Your task to perform on an android device: turn smart compose on in the gmail app Image 0: 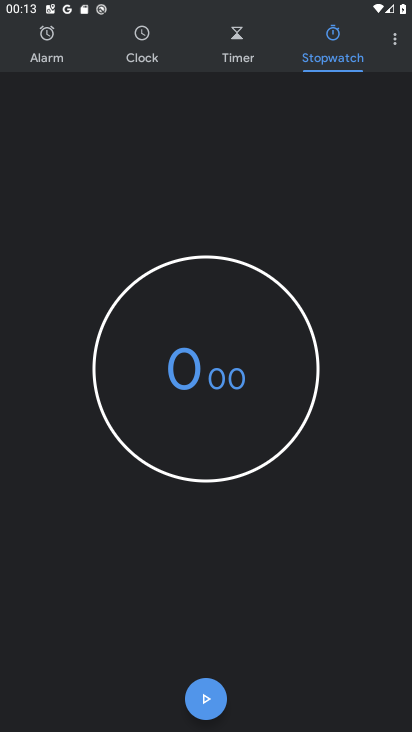
Step 0: press home button
Your task to perform on an android device: turn smart compose on in the gmail app Image 1: 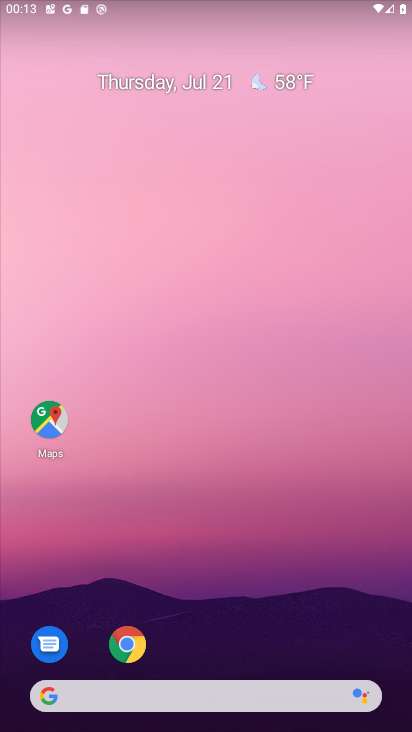
Step 1: drag from (205, 726) to (369, 3)
Your task to perform on an android device: turn smart compose on in the gmail app Image 2: 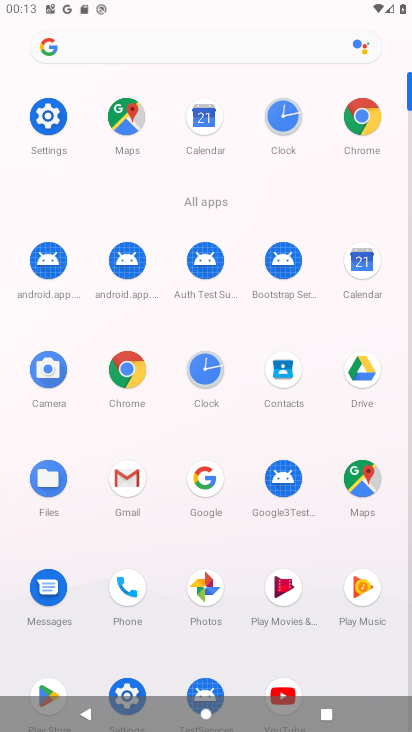
Step 2: click (138, 479)
Your task to perform on an android device: turn smart compose on in the gmail app Image 3: 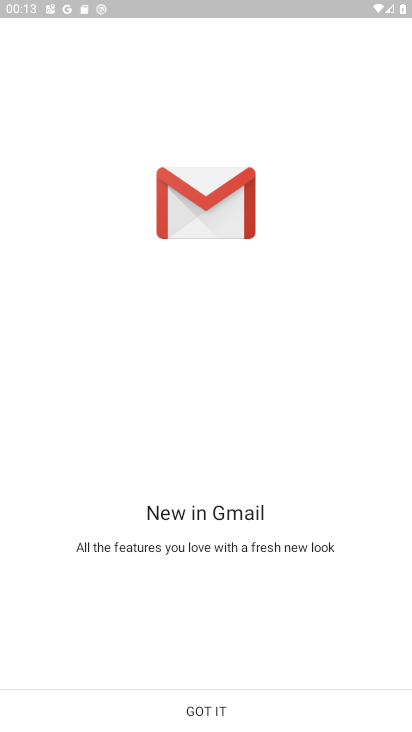
Step 3: click (266, 702)
Your task to perform on an android device: turn smart compose on in the gmail app Image 4: 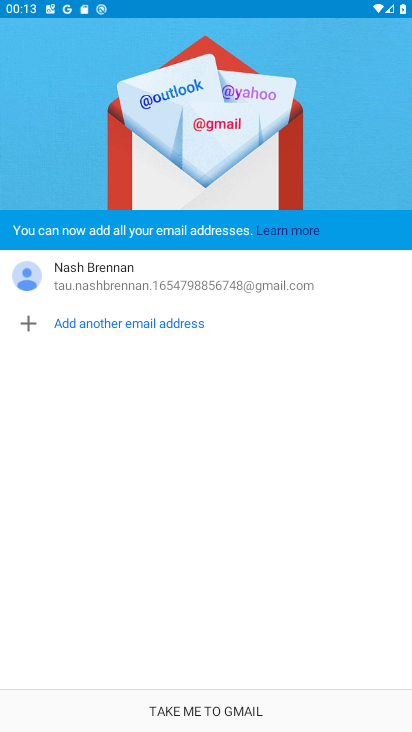
Step 4: click (266, 702)
Your task to perform on an android device: turn smart compose on in the gmail app Image 5: 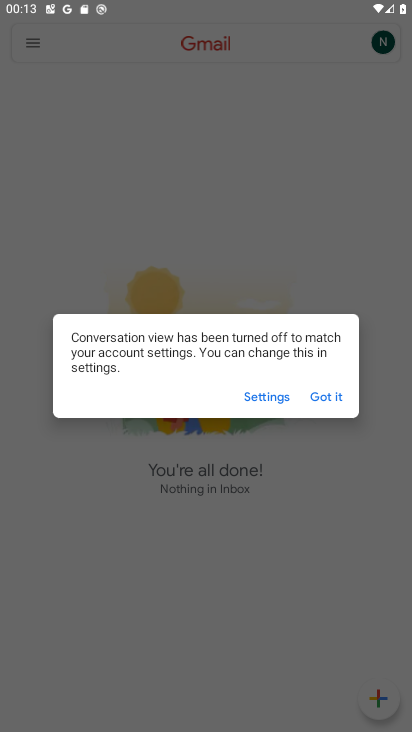
Step 5: click (324, 392)
Your task to perform on an android device: turn smart compose on in the gmail app Image 6: 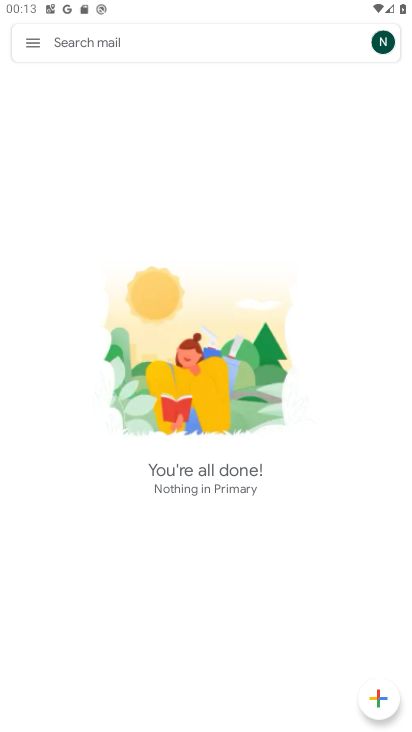
Step 6: click (31, 39)
Your task to perform on an android device: turn smart compose on in the gmail app Image 7: 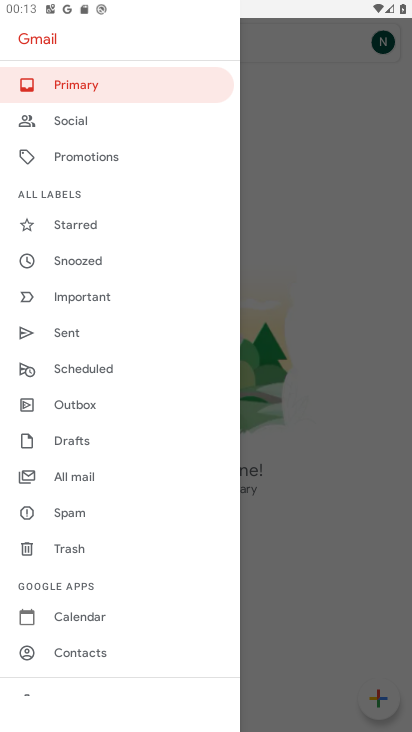
Step 7: drag from (155, 650) to (251, 51)
Your task to perform on an android device: turn smart compose on in the gmail app Image 8: 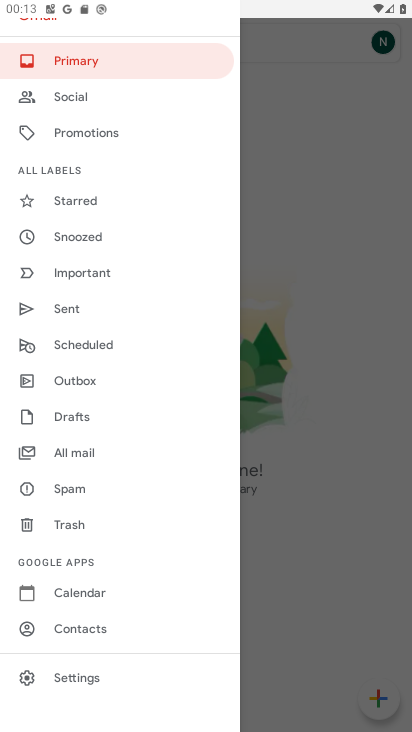
Step 8: click (100, 678)
Your task to perform on an android device: turn smart compose on in the gmail app Image 9: 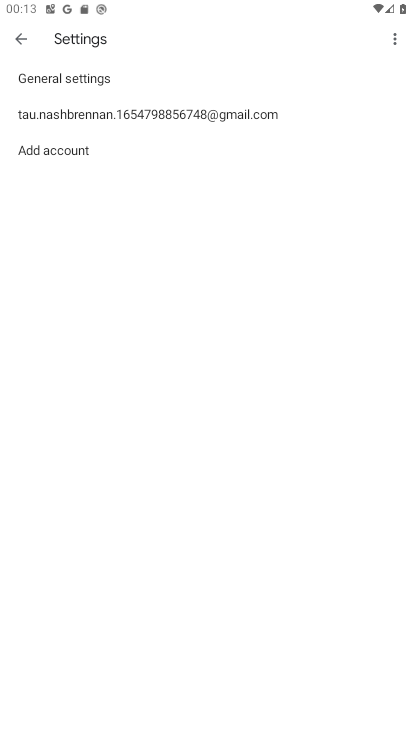
Step 9: click (226, 112)
Your task to perform on an android device: turn smart compose on in the gmail app Image 10: 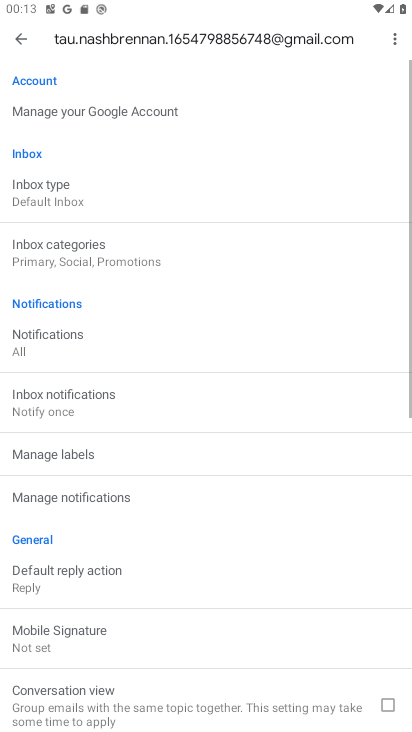
Step 10: task complete